Your task to perform on an android device: toggle javascript in the chrome app Image 0: 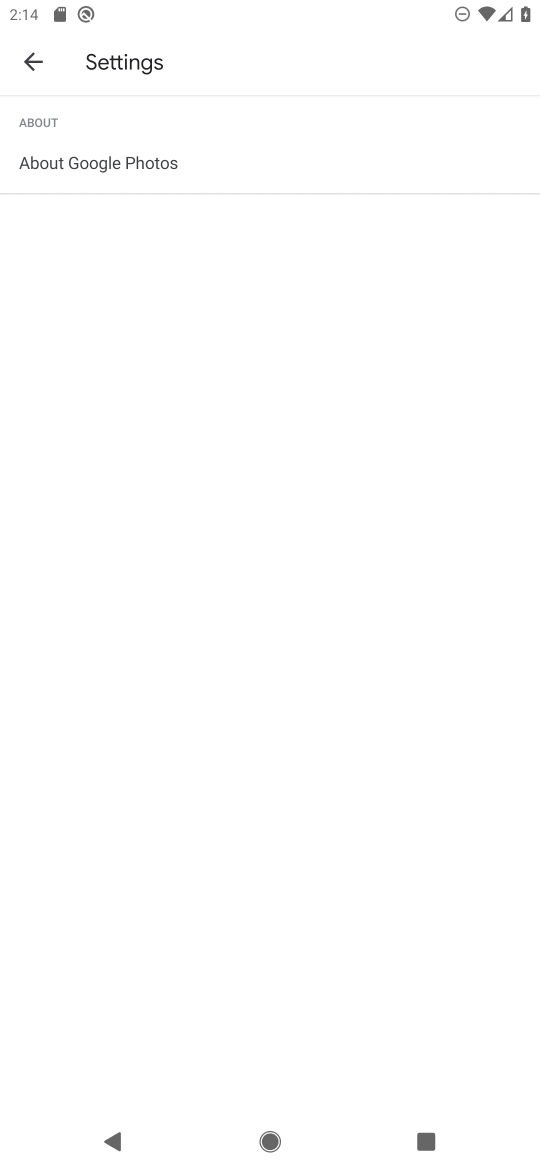
Step 0: press home button
Your task to perform on an android device: toggle javascript in the chrome app Image 1: 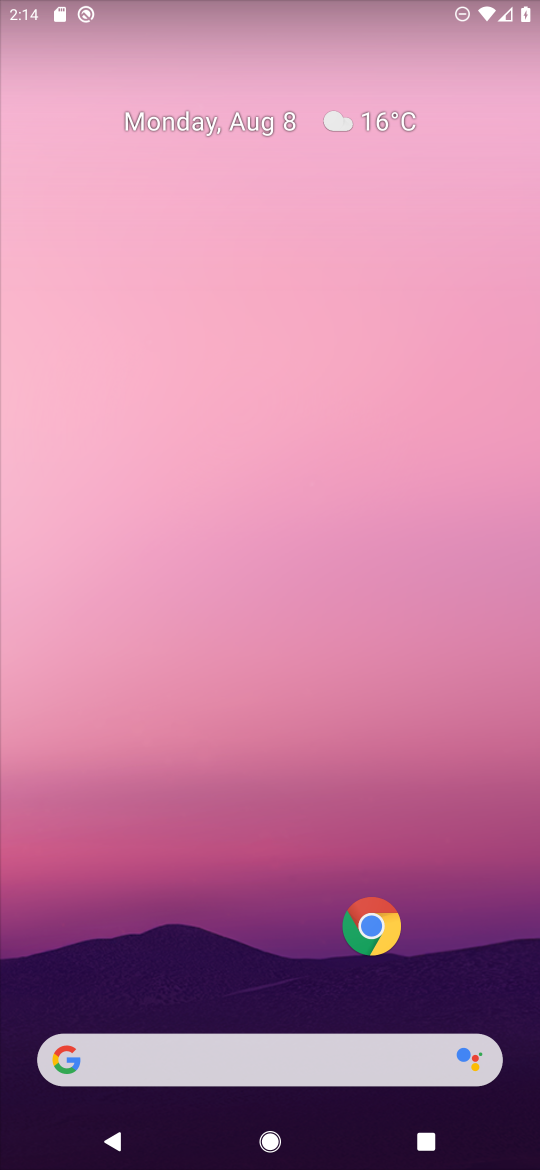
Step 1: drag from (297, 825) to (406, 170)
Your task to perform on an android device: toggle javascript in the chrome app Image 2: 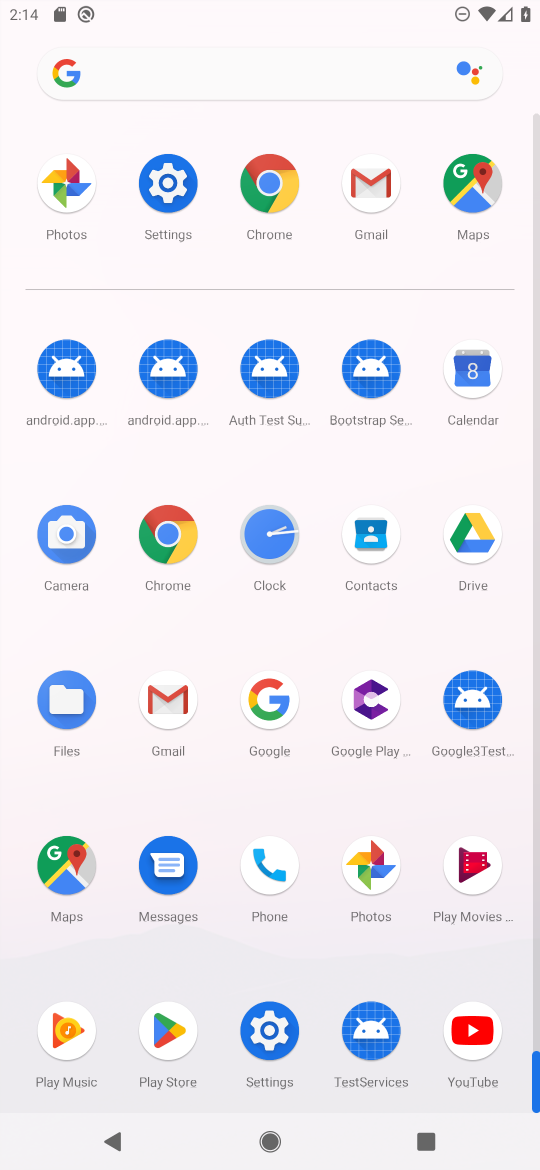
Step 2: click (270, 179)
Your task to perform on an android device: toggle javascript in the chrome app Image 3: 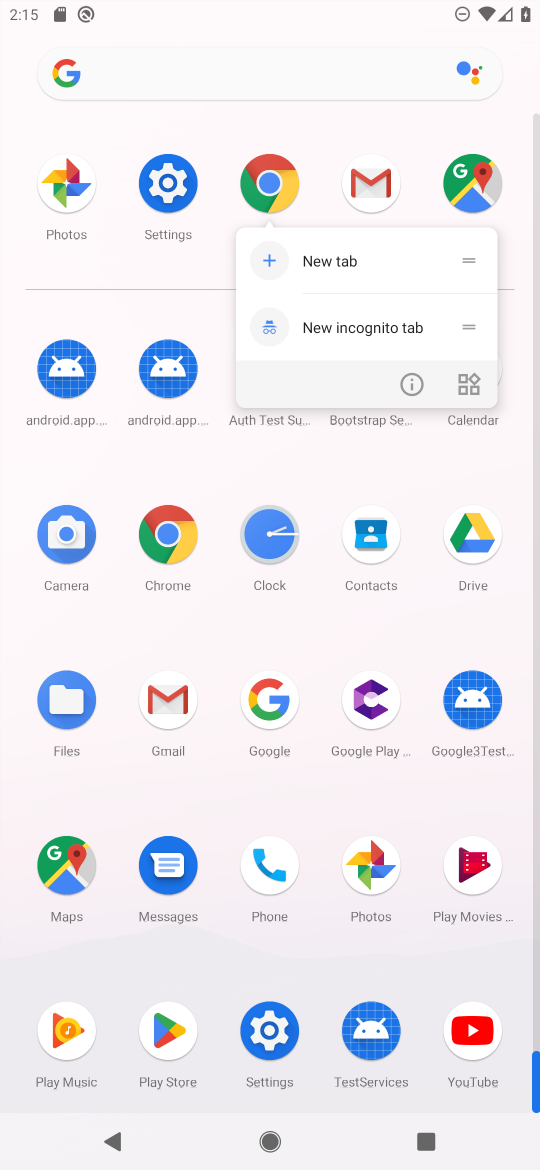
Step 3: click (266, 182)
Your task to perform on an android device: toggle javascript in the chrome app Image 4: 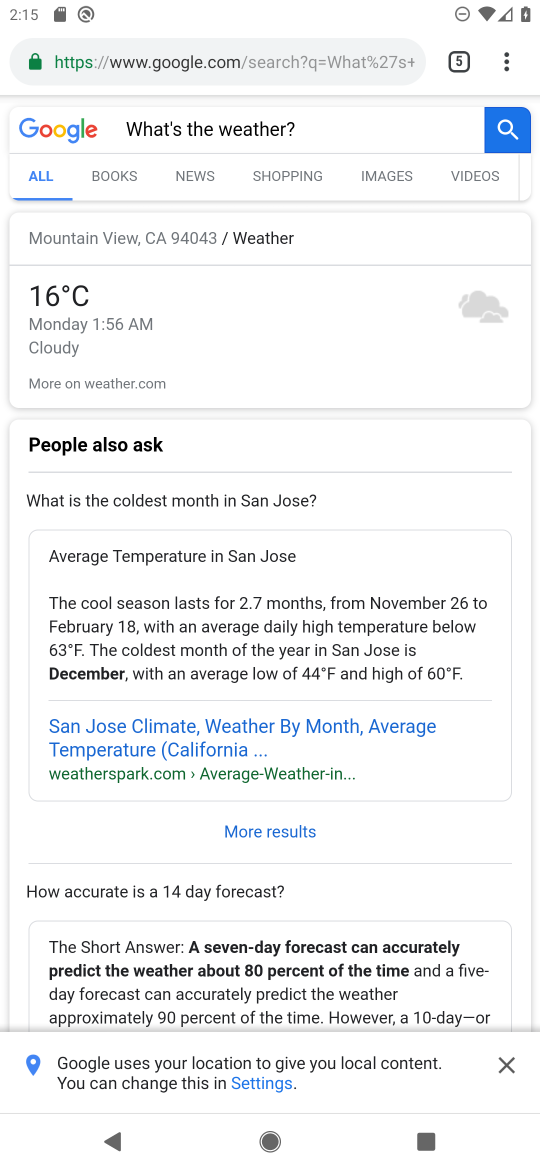
Step 4: click (500, 75)
Your task to perform on an android device: toggle javascript in the chrome app Image 5: 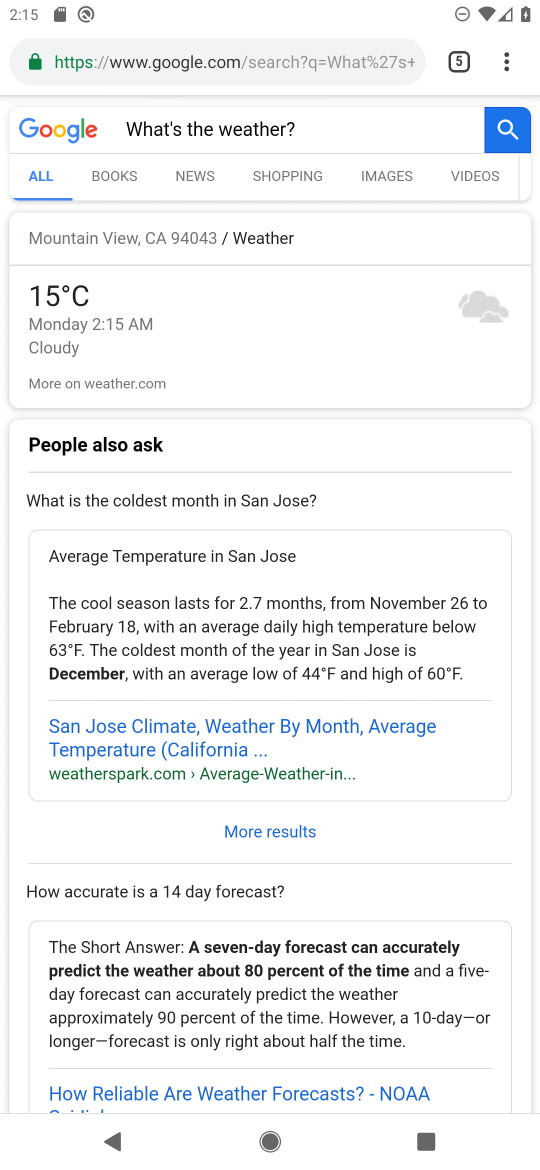
Step 5: click (522, 69)
Your task to perform on an android device: toggle javascript in the chrome app Image 6: 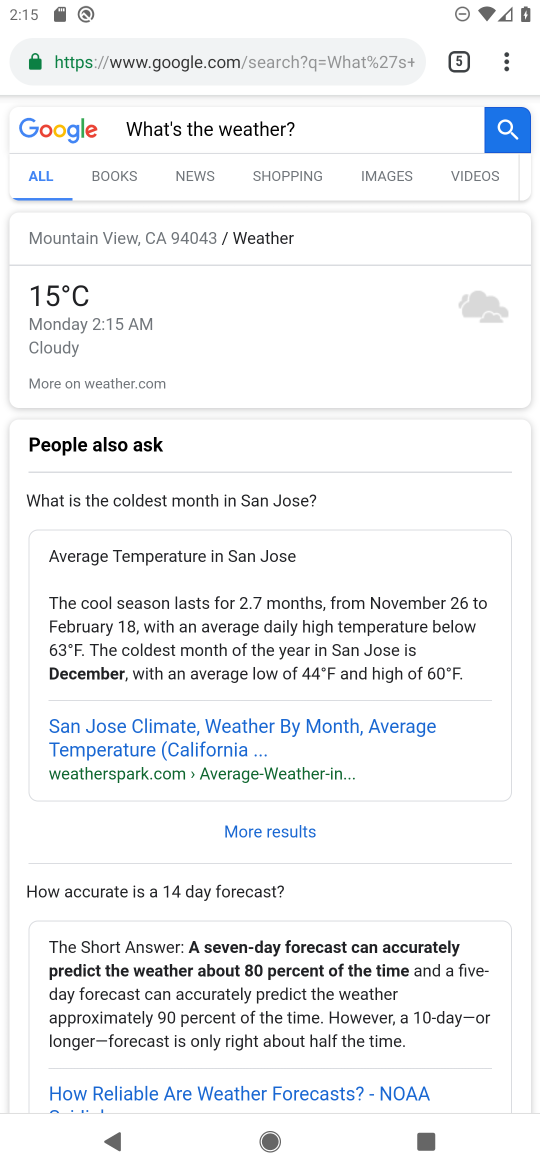
Step 6: click (514, 60)
Your task to perform on an android device: toggle javascript in the chrome app Image 7: 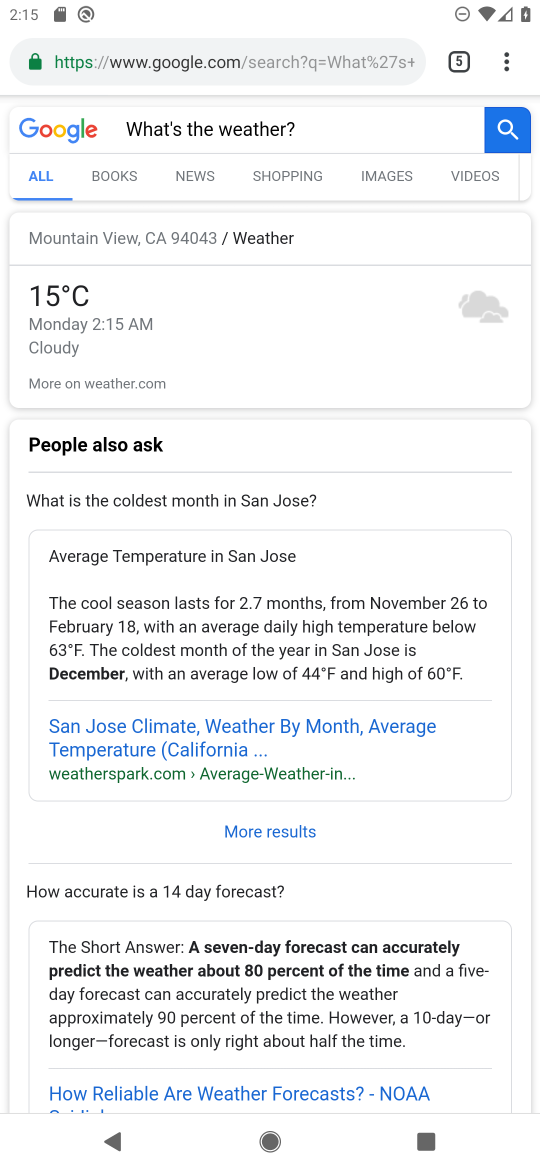
Step 7: click (514, 60)
Your task to perform on an android device: toggle javascript in the chrome app Image 8: 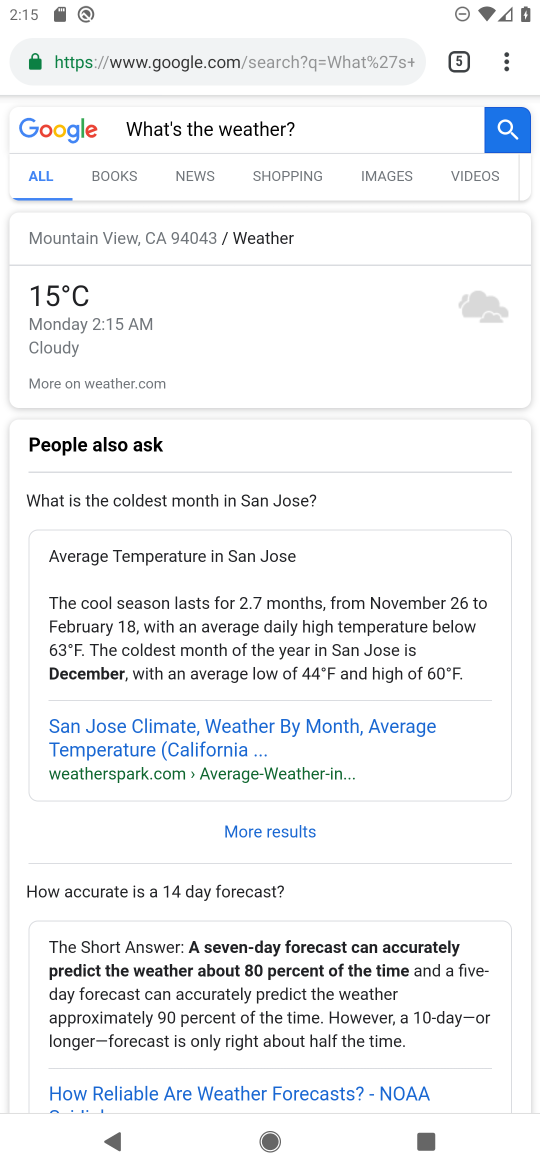
Step 8: click (506, 60)
Your task to perform on an android device: toggle javascript in the chrome app Image 9: 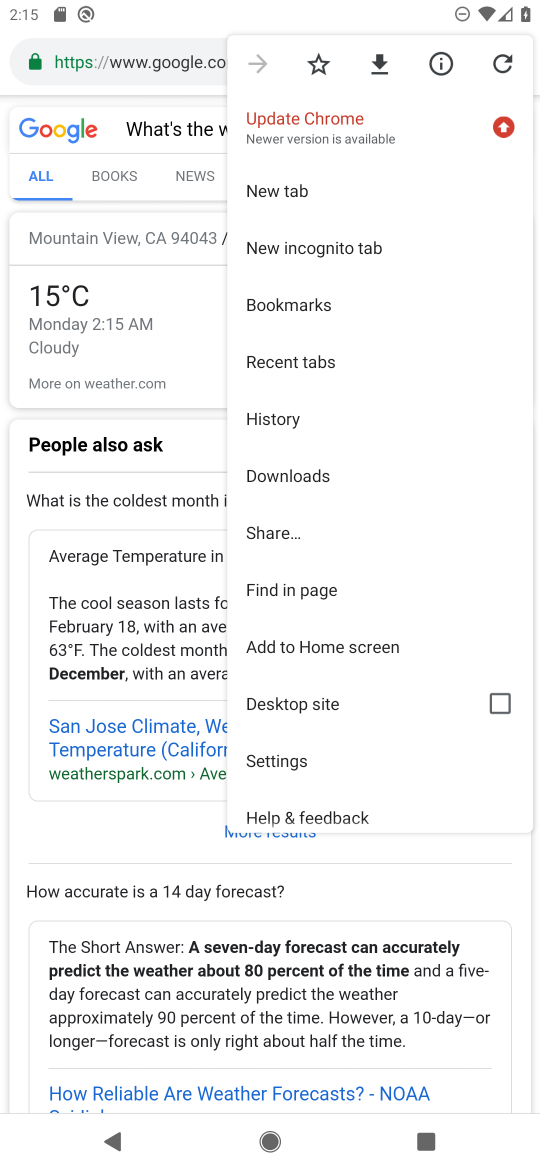
Step 9: click (304, 760)
Your task to perform on an android device: toggle javascript in the chrome app Image 10: 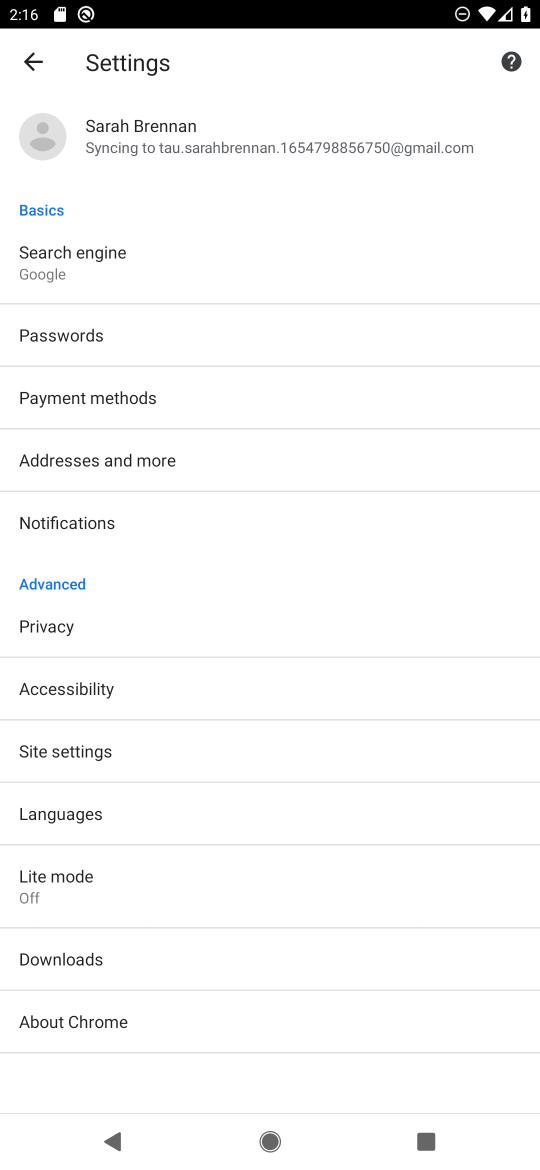
Step 10: click (159, 740)
Your task to perform on an android device: toggle javascript in the chrome app Image 11: 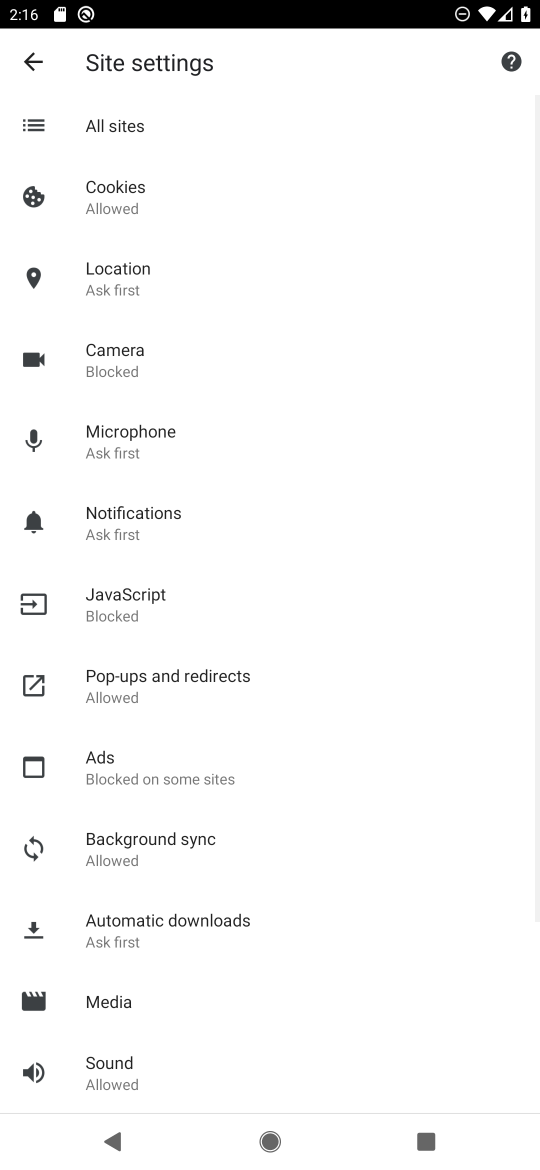
Step 11: click (165, 601)
Your task to perform on an android device: toggle javascript in the chrome app Image 12: 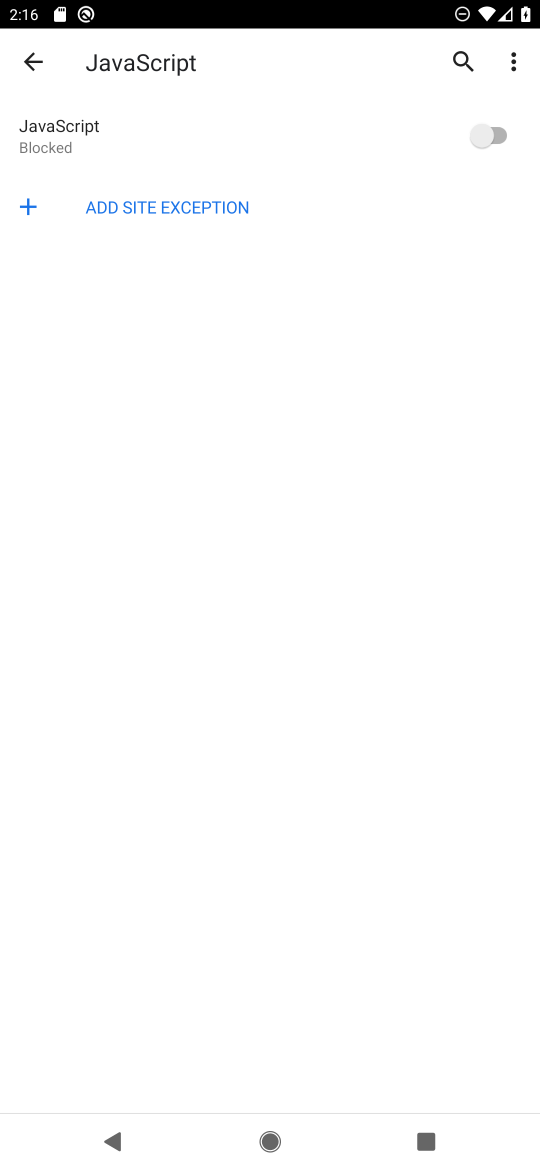
Step 12: click (477, 128)
Your task to perform on an android device: toggle javascript in the chrome app Image 13: 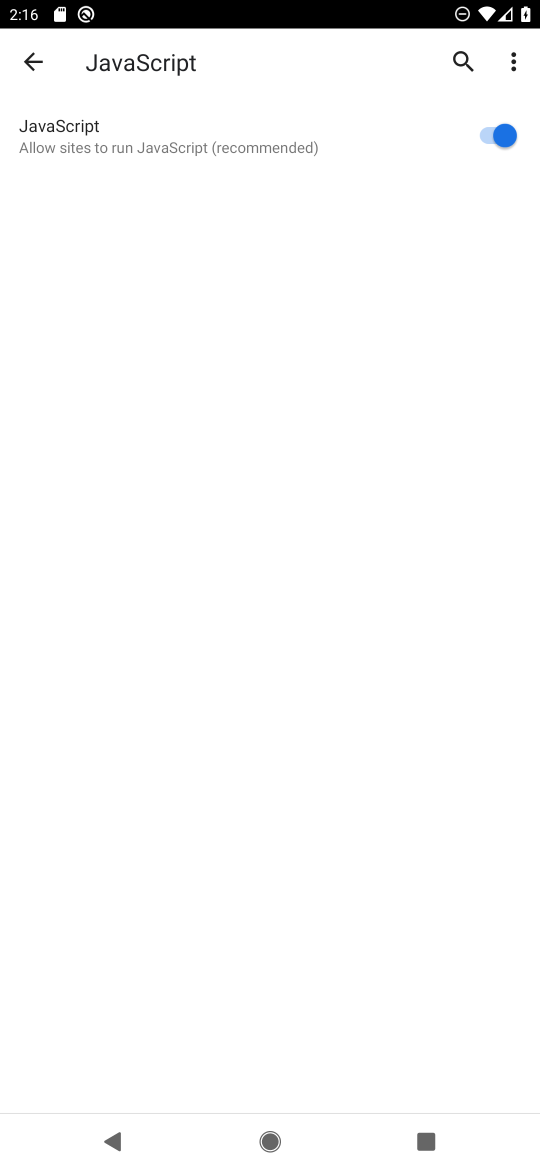
Step 13: task complete